Your task to perform on an android device: Clear the shopping cart on costco.com. Image 0: 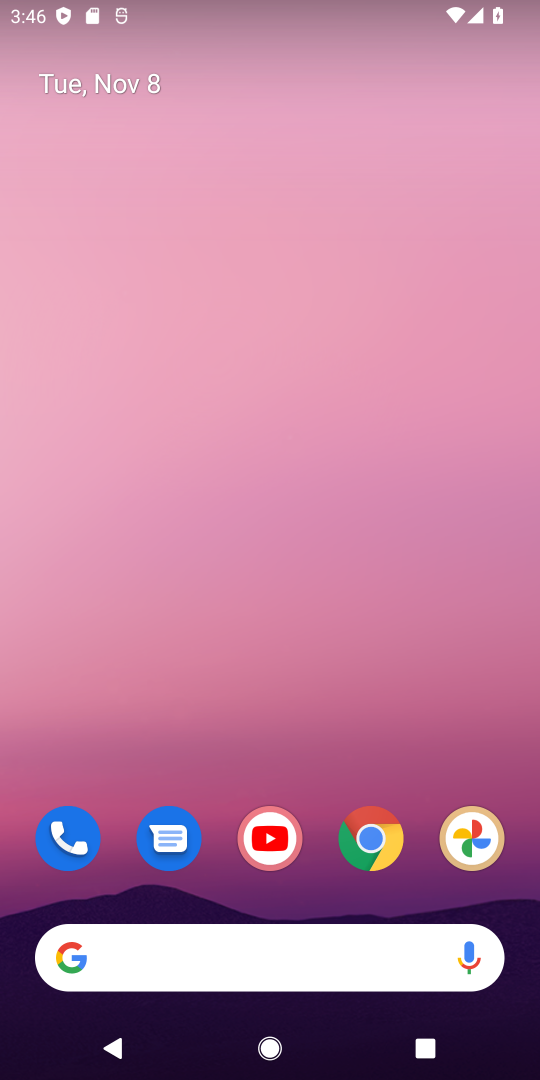
Step 0: drag from (351, 1031) to (445, 62)
Your task to perform on an android device: Clear the shopping cart on costco.com. Image 1: 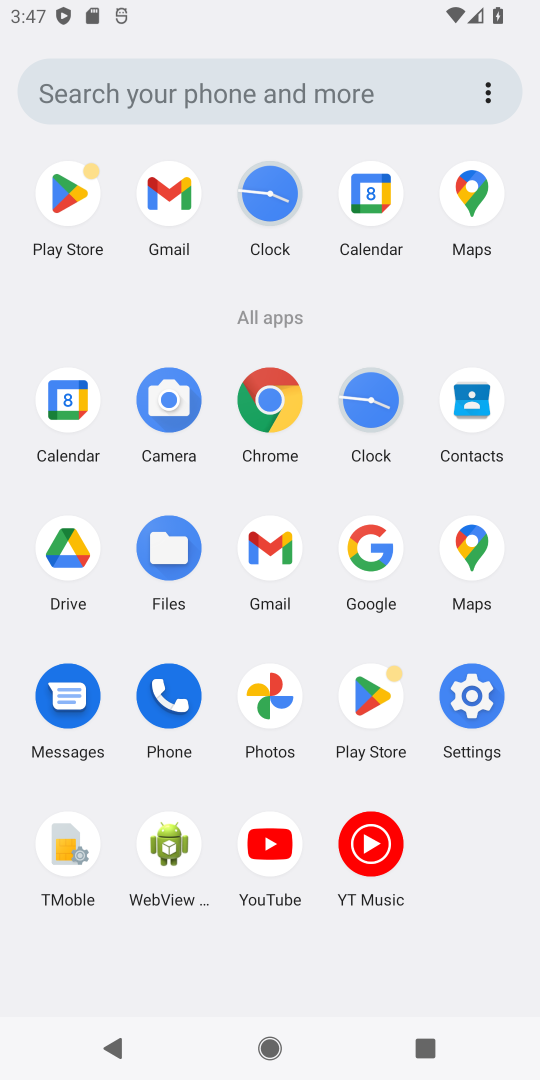
Step 1: click (256, 382)
Your task to perform on an android device: Clear the shopping cart on costco.com. Image 2: 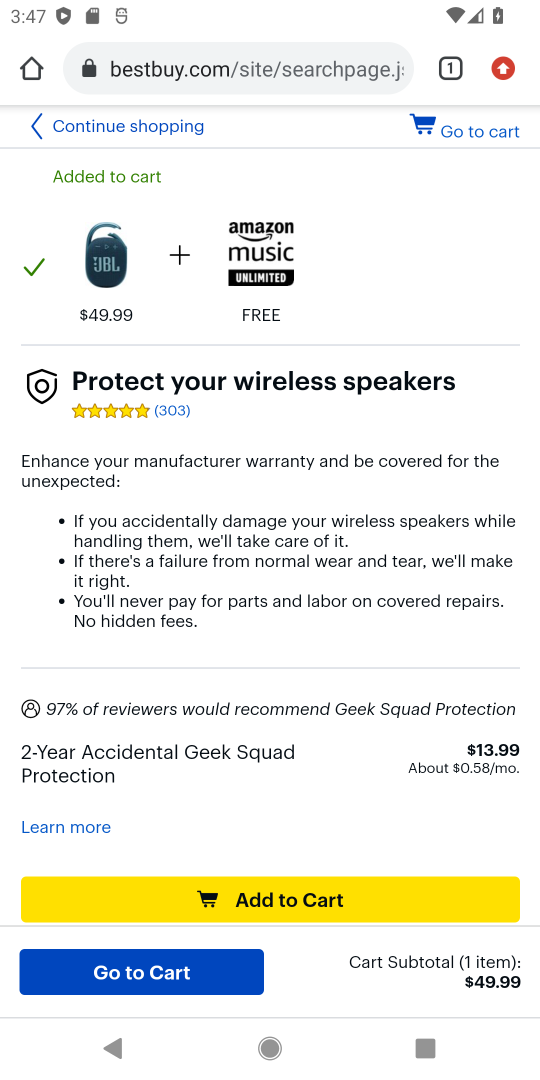
Step 2: click (162, 65)
Your task to perform on an android device: Clear the shopping cart on costco.com. Image 3: 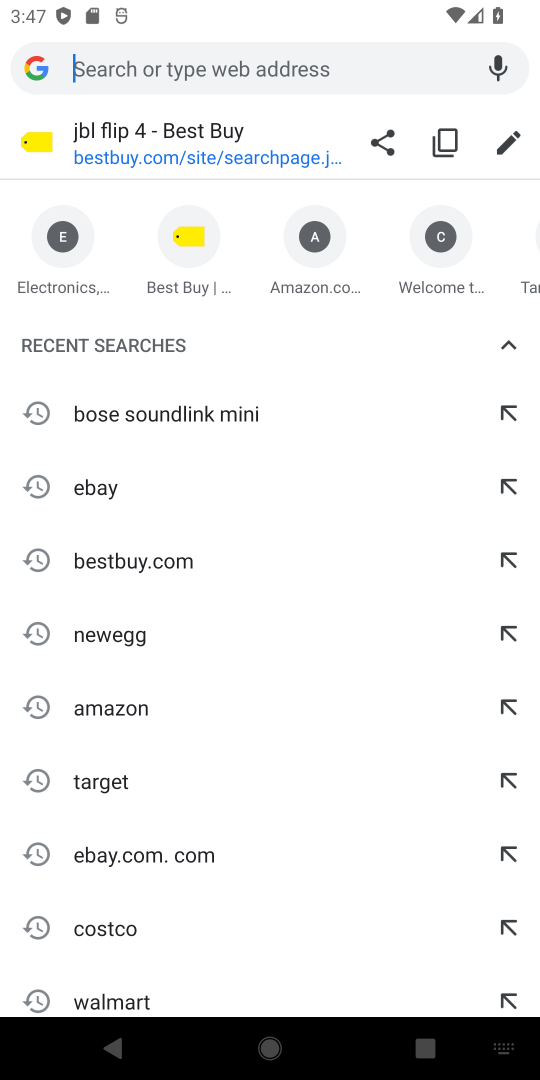
Step 3: type "costco.com"
Your task to perform on an android device: Clear the shopping cart on costco.com. Image 4: 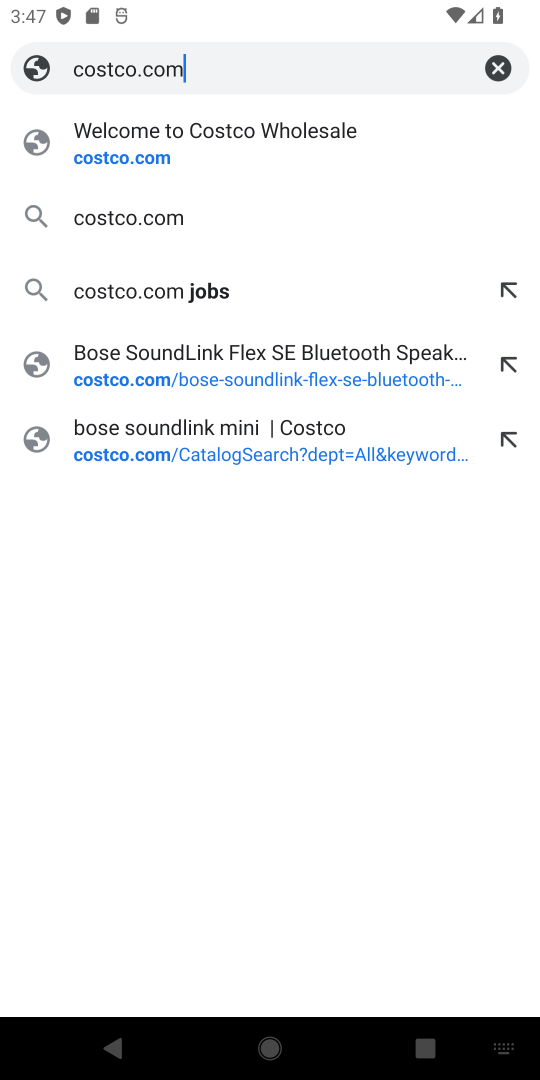
Step 4: click (151, 155)
Your task to perform on an android device: Clear the shopping cart on costco.com. Image 5: 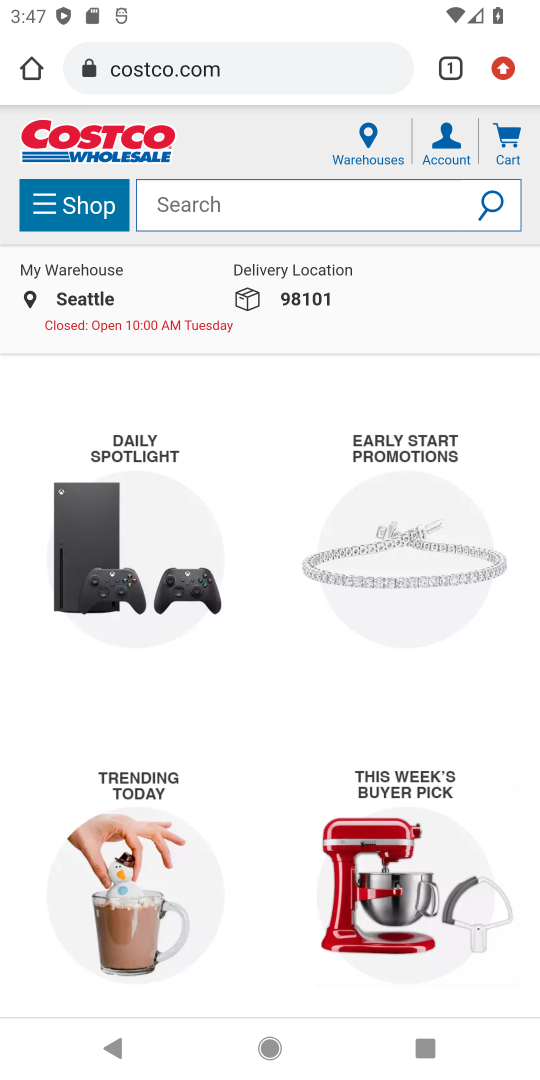
Step 5: click (189, 200)
Your task to perform on an android device: Clear the shopping cart on costco.com. Image 6: 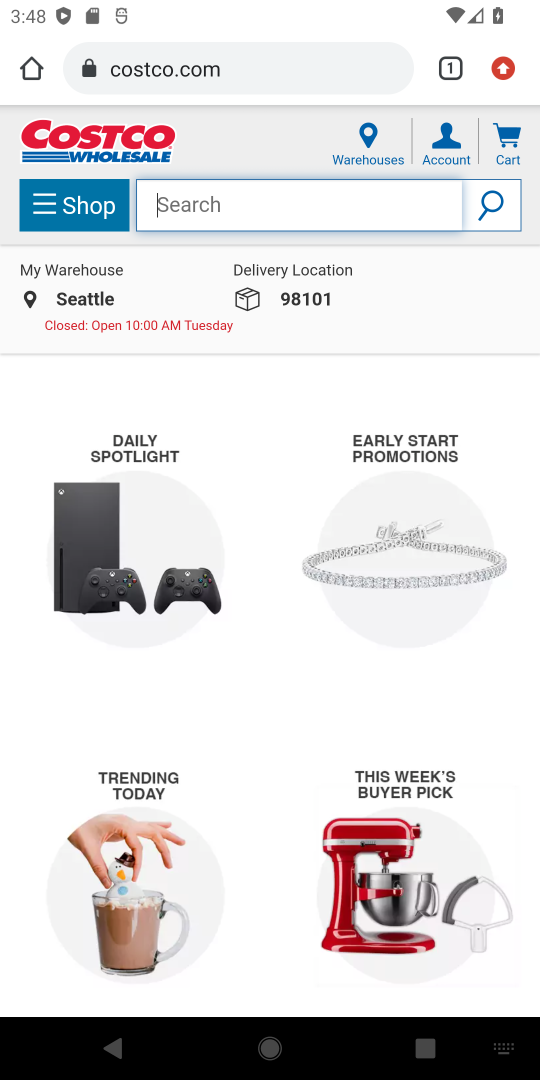
Step 6: click (505, 139)
Your task to perform on an android device: Clear the shopping cart on costco.com. Image 7: 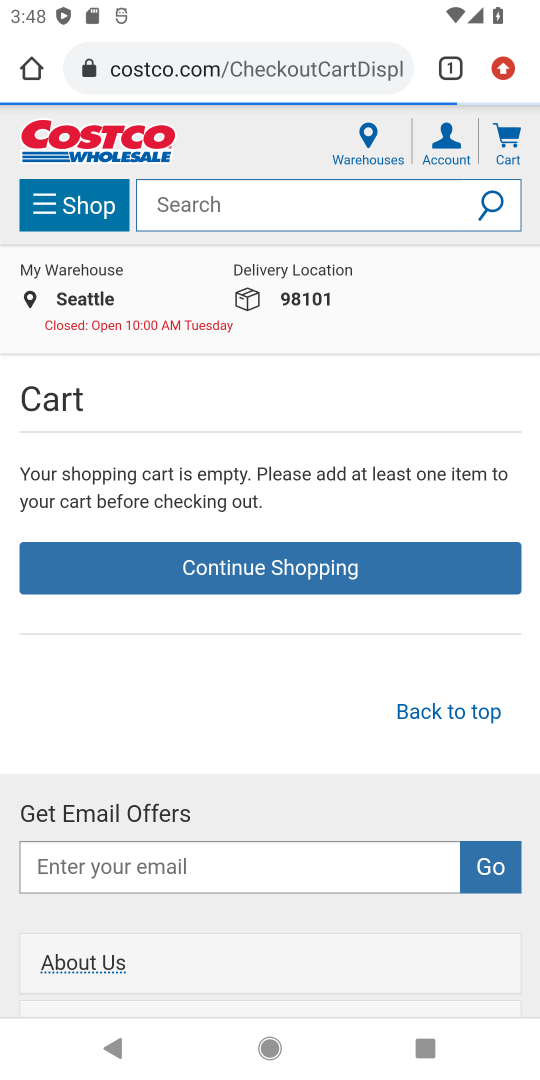
Step 7: task complete